Your task to perform on an android device: change keyboard looks Image 0: 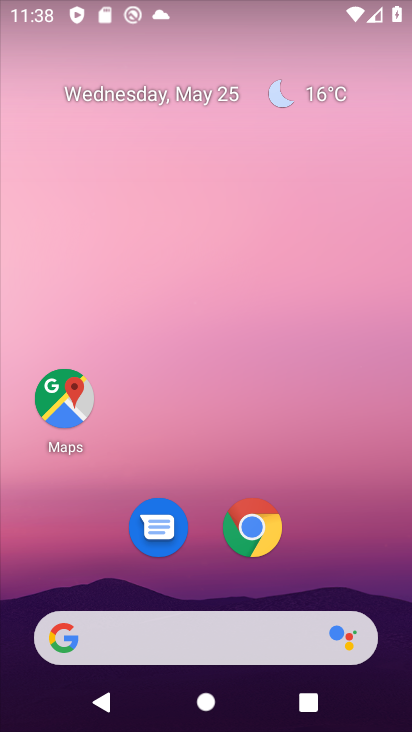
Step 0: drag from (374, 577) to (357, 156)
Your task to perform on an android device: change keyboard looks Image 1: 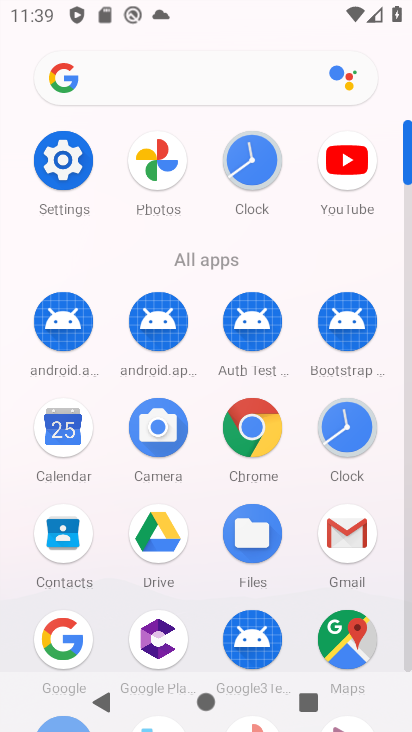
Step 1: click (69, 175)
Your task to perform on an android device: change keyboard looks Image 2: 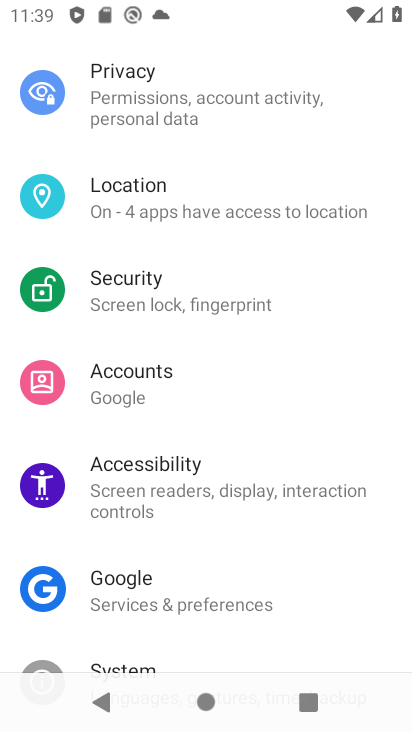
Step 2: drag from (187, 515) to (275, 3)
Your task to perform on an android device: change keyboard looks Image 3: 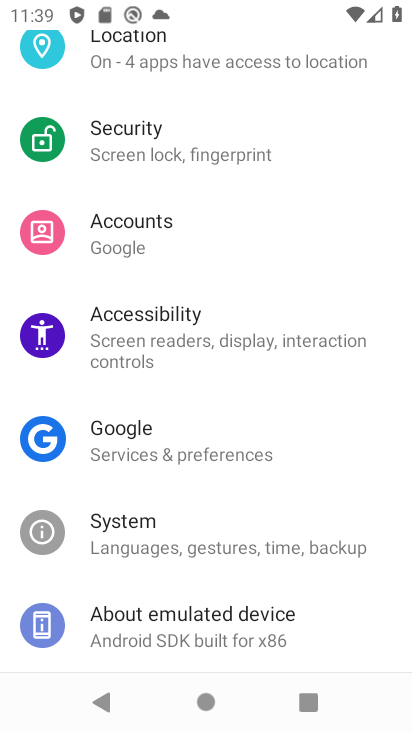
Step 3: click (208, 619)
Your task to perform on an android device: change keyboard looks Image 4: 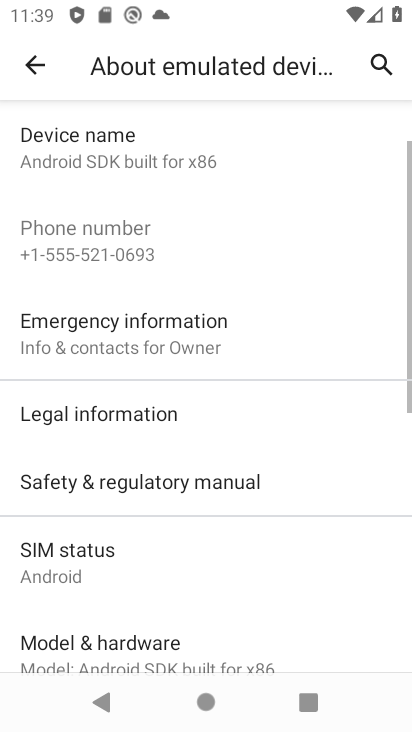
Step 4: drag from (175, 496) to (233, 165)
Your task to perform on an android device: change keyboard looks Image 5: 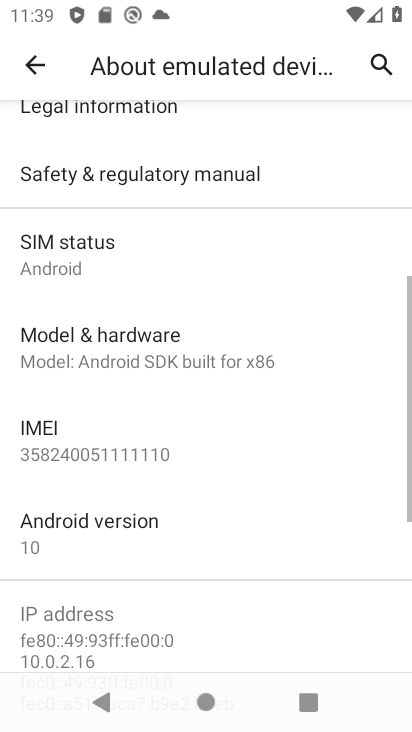
Step 5: click (13, 68)
Your task to perform on an android device: change keyboard looks Image 6: 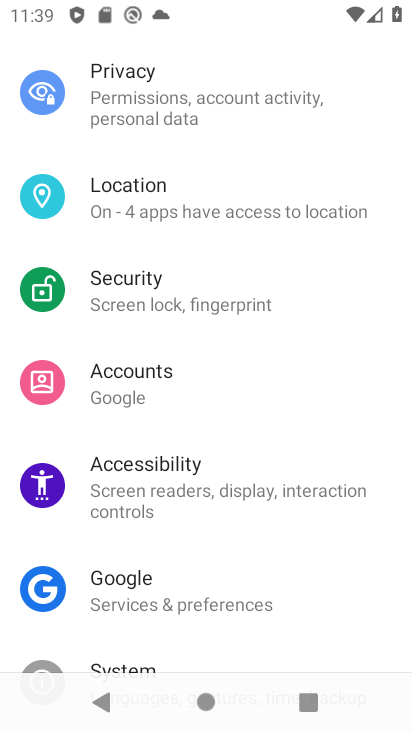
Step 6: drag from (130, 586) to (163, 284)
Your task to perform on an android device: change keyboard looks Image 7: 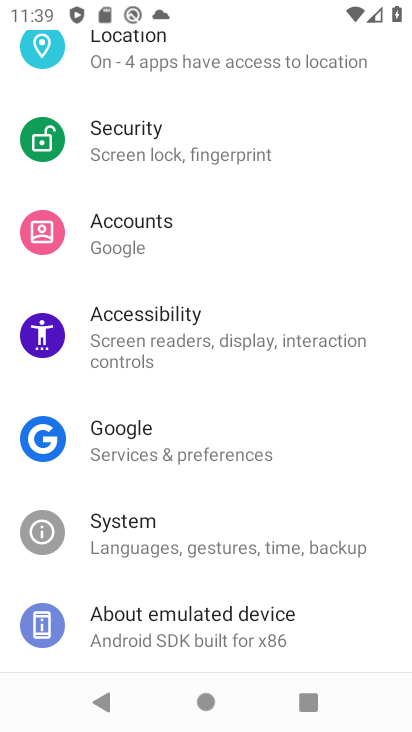
Step 7: click (71, 500)
Your task to perform on an android device: change keyboard looks Image 8: 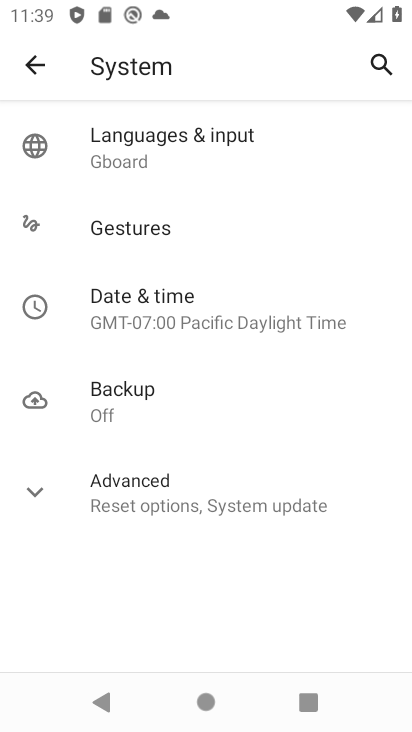
Step 8: click (281, 148)
Your task to perform on an android device: change keyboard looks Image 9: 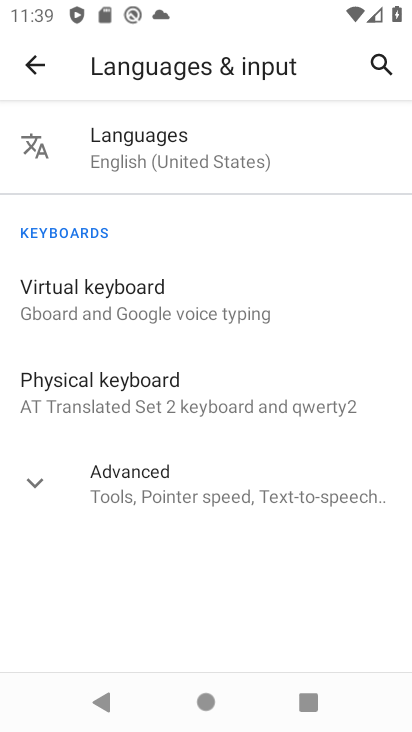
Step 9: click (146, 289)
Your task to perform on an android device: change keyboard looks Image 10: 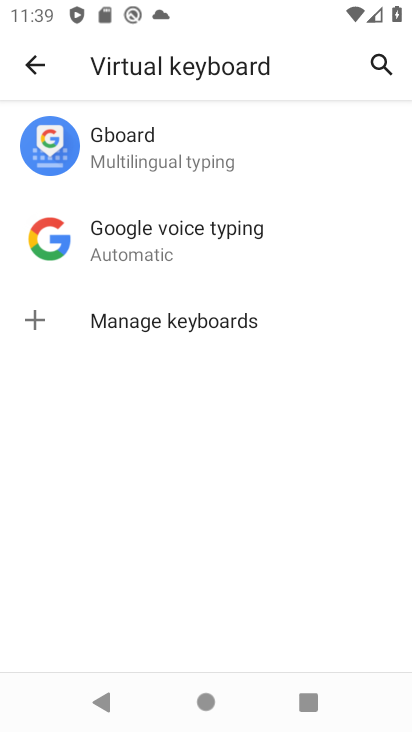
Step 10: click (150, 131)
Your task to perform on an android device: change keyboard looks Image 11: 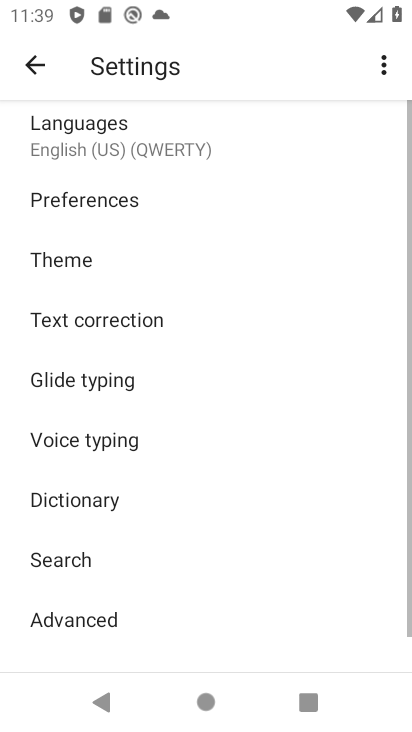
Step 11: click (142, 232)
Your task to perform on an android device: change keyboard looks Image 12: 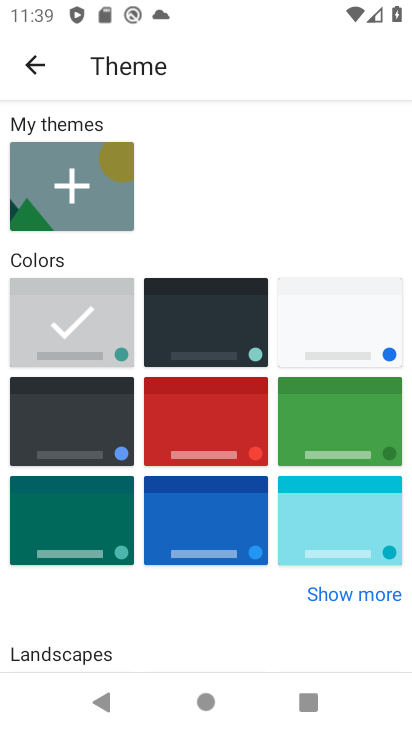
Step 12: click (188, 435)
Your task to perform on an android device: change keyboard looks Image 13: 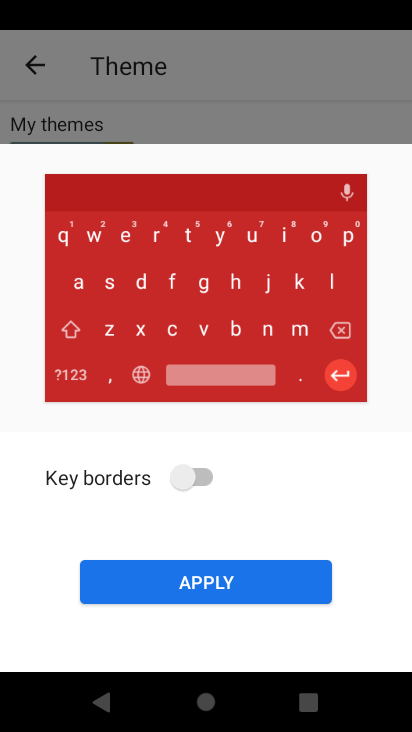
Step 13: click (174, 593)
Your task to perform on an android device: change keyboard looks Image 14: 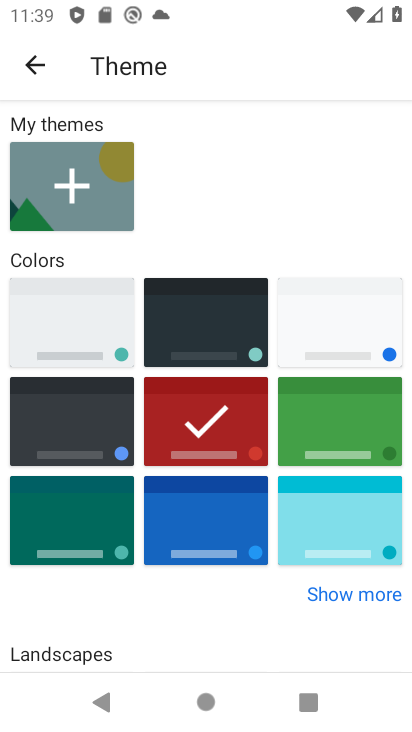
Step 14: task complete